Your task to perform on an android device: set the stopwatch Image 0: 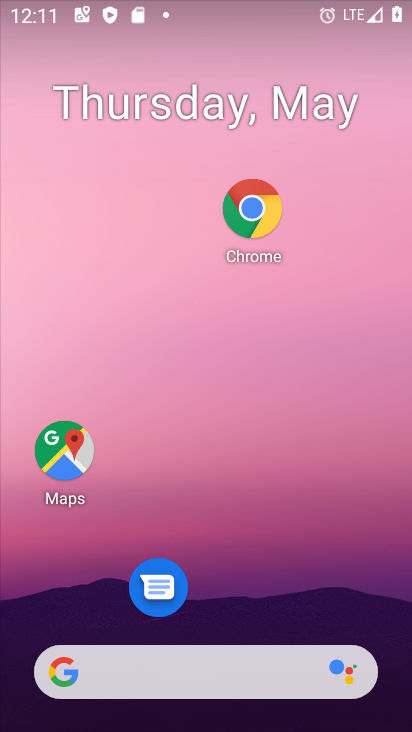
Step 0: drag from (243, 600) to (307, 156)
Your task to perform on an android device: set the stopwatch Image 1: 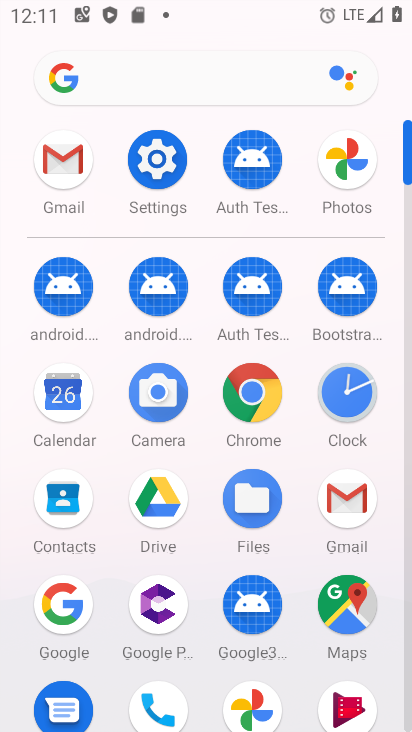
Step 1: drag from (315, 664) to (285, 272)
Your task to perform on an android device: set the stopwatch Image 2: 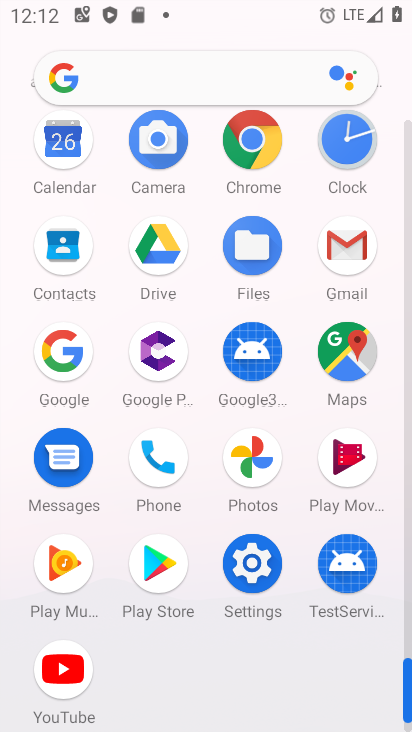
Step 2: click (352, 154)
Your task to perform on an android device: set the stopwatch Image 3: 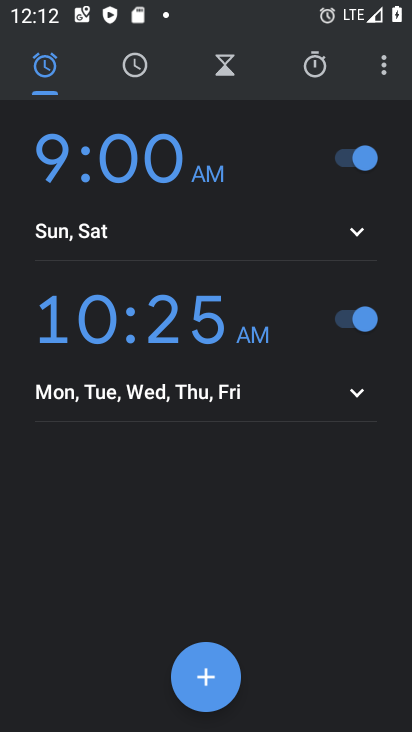
Step 3: click (315, 72)
Your task to perform on an android device: set the stopwatch Image 4: 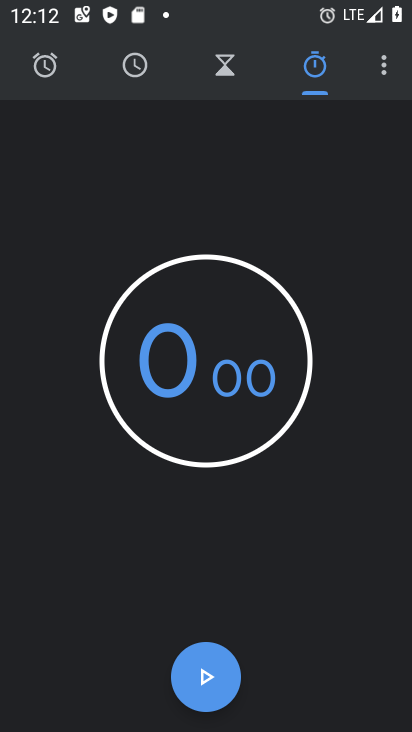
Step 4: click (213, 696)
Your task to perform on an android device: set the stopwatch Image 5: 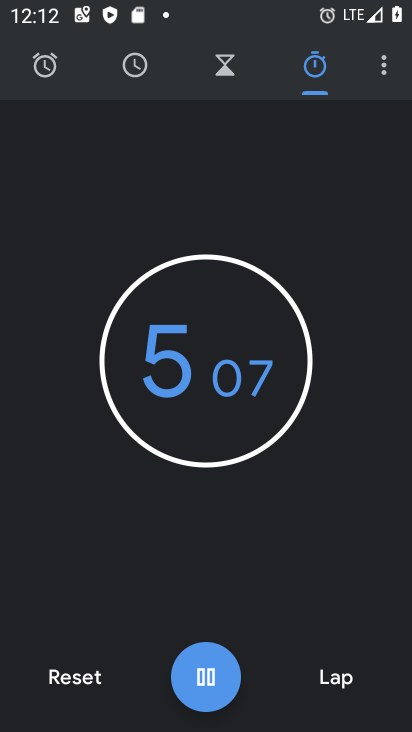
Step 5: click (209, 699)
Your task to perform on an android device: set the stopwatch Image 6: 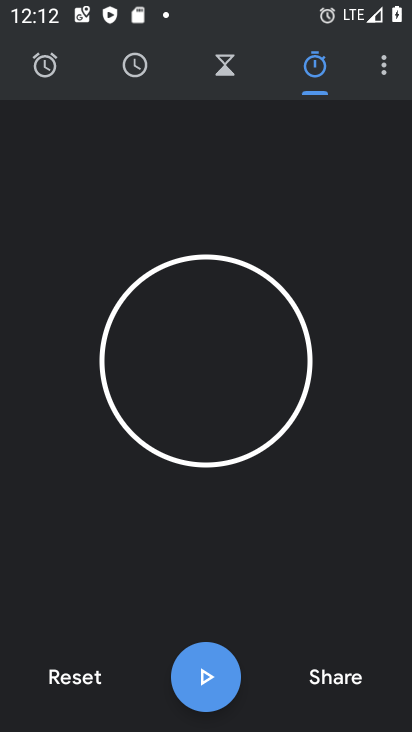
Step 6: task complete